Your task to perform on an android device: Search for pizza restaurants on Maps Image 0: 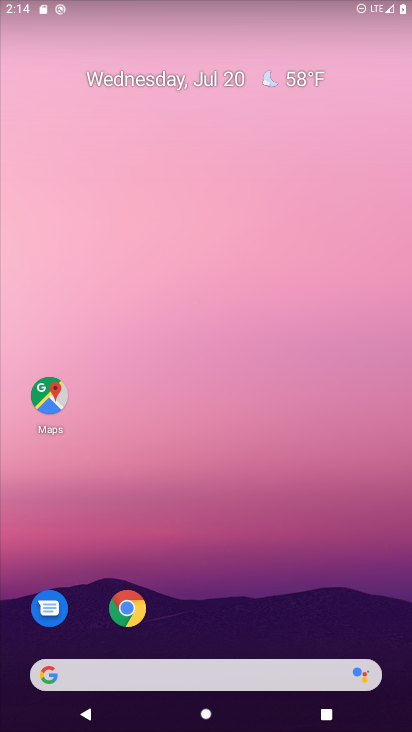
Step 0: drag from (229, 725) to (240, 154)
Your task to perform on an android device: Search for pizza restaurants on Maps Image 1: 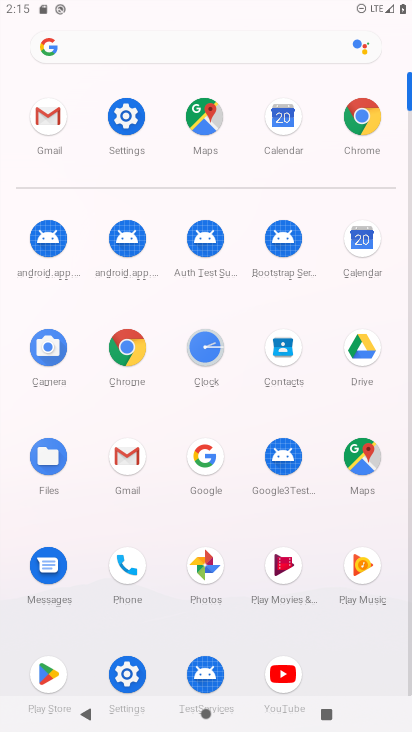
Step 1: click (365, 457)
Your task to perform on an android device: Search for pizza restaurants on Maps Image 2: 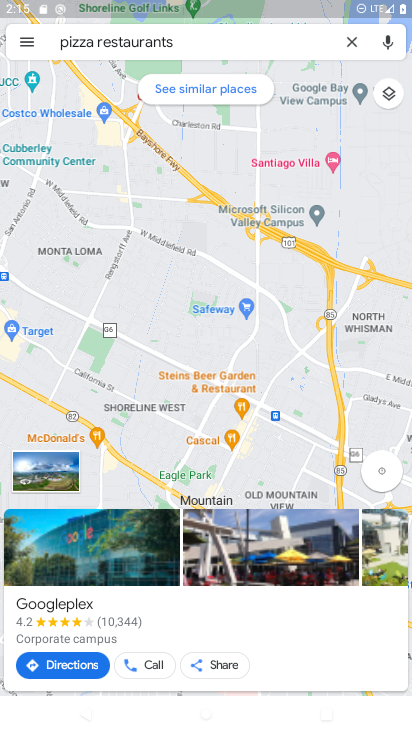
Step 2: task complete